Your task to perform on an android device: all mails in gmail Image 0: 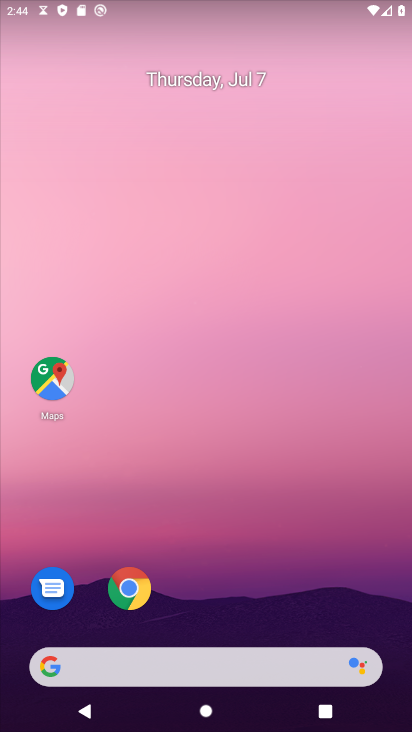
Step 0: drag from (253, 583) to (205, 7)
Your task to perform on an android device: all mails in gmail Image 1: 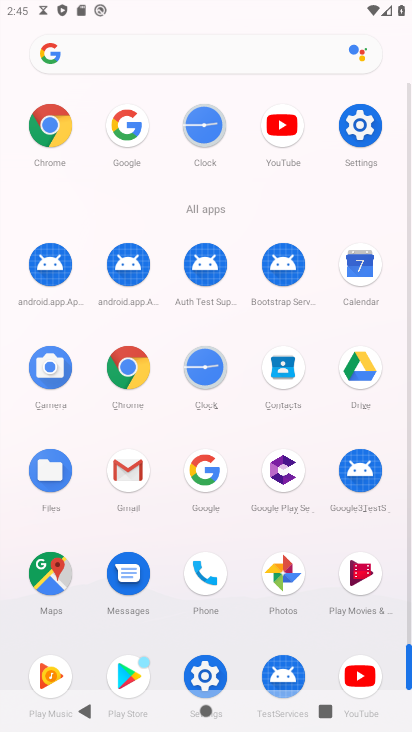
Step 1: click (128, 468)
Your task to perform on an android device: all mails in gmail Image 2: 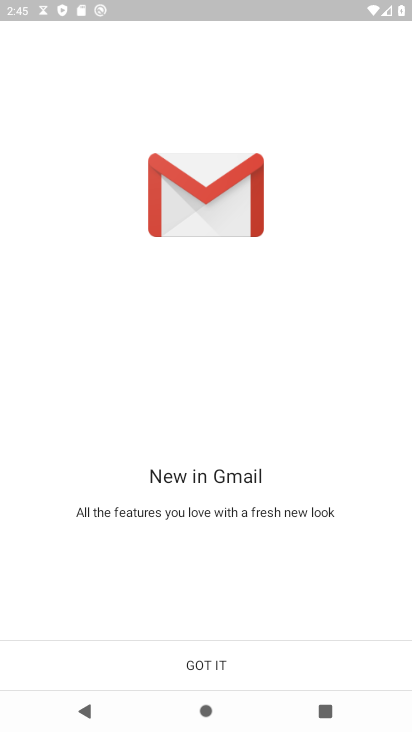
Step 2: click (201, 659)
Your task to perform on an android device: all mails in gmail Image 3: 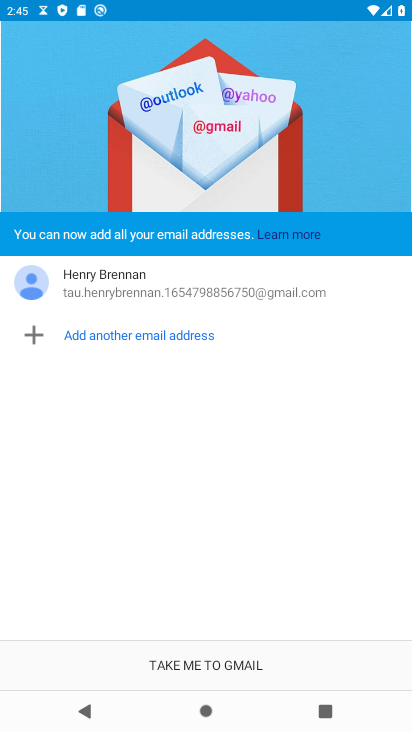
Step 3: click (201, 659)
Your task to perform on an android device: all mails in gmail Image 4: 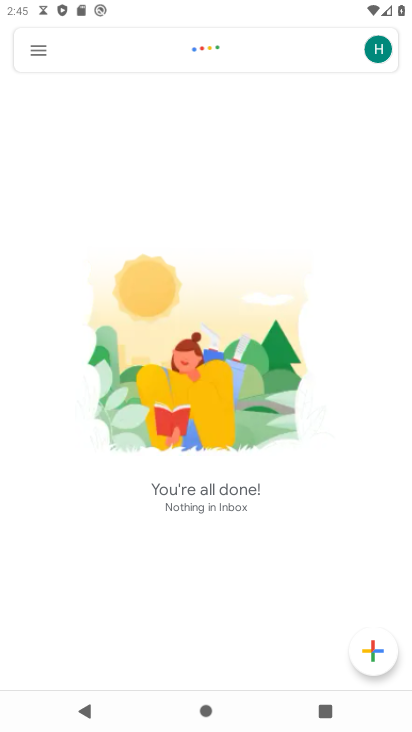
Step 4: click (38, 49)
Your task to perform on an android device: all mails in gmail Image 5: 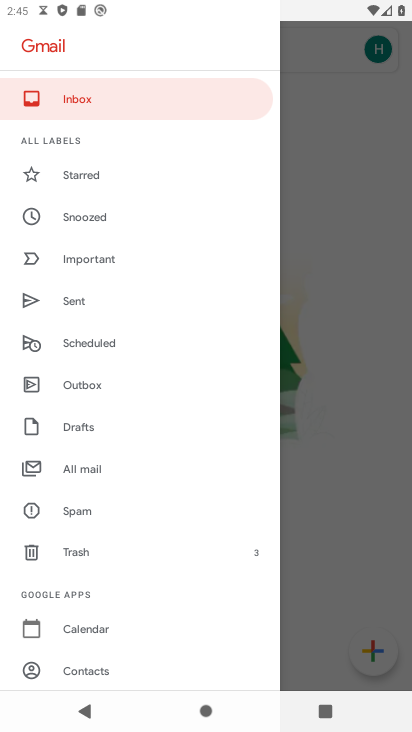
Step 5: click (75, 471)
Your task to perform on an android device: all mails in gmail Image 6: 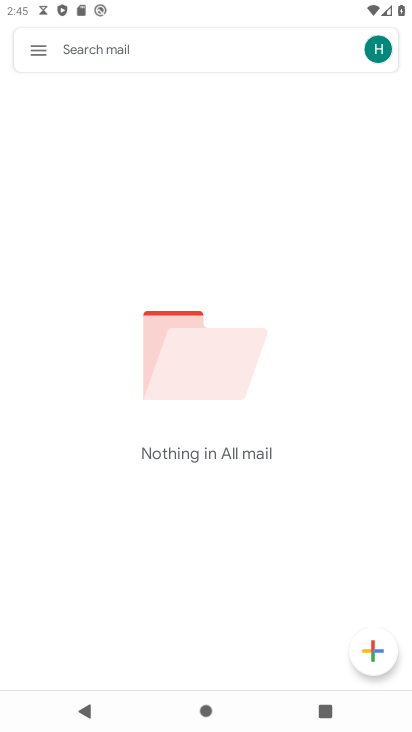
Step 6: task complete